Your task to perform on an android device: turn off improve location accuracy Image 0: 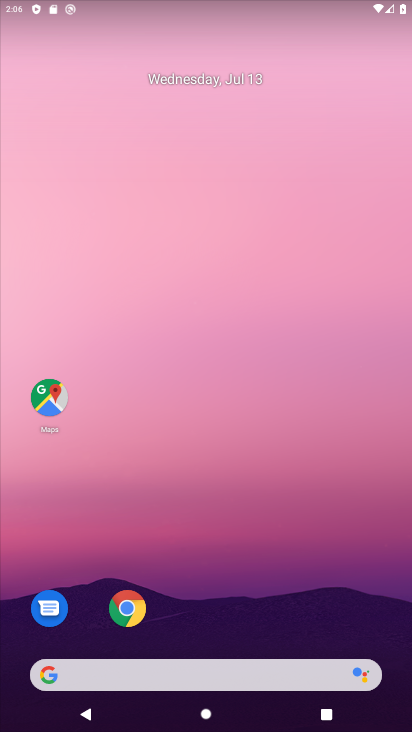
Step 0: drag from (223, 627) to (205, 202)
Your task to perform on an android device: turn off improve location accuracy Image 1: 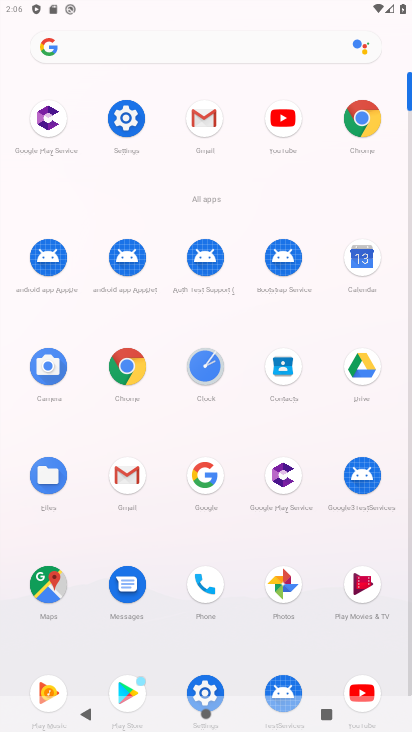
Step 1: click (198, 683)
Your task to perform on an android device: turn off improve location accuracy Image 2: 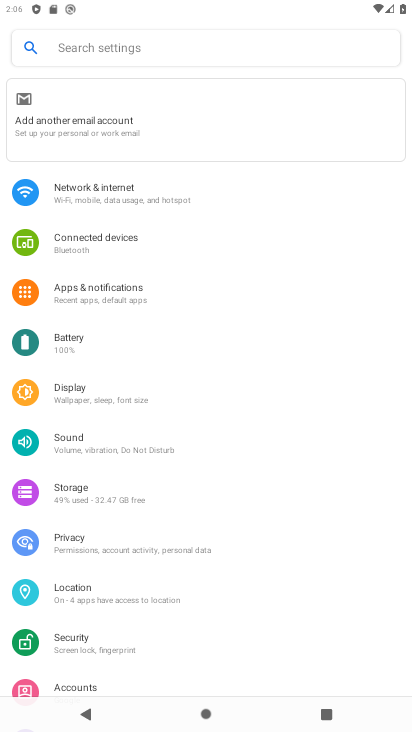
Step 2: click (89, 596)
Your task to perform on an android device: turn off improve location accuracy Image 3: 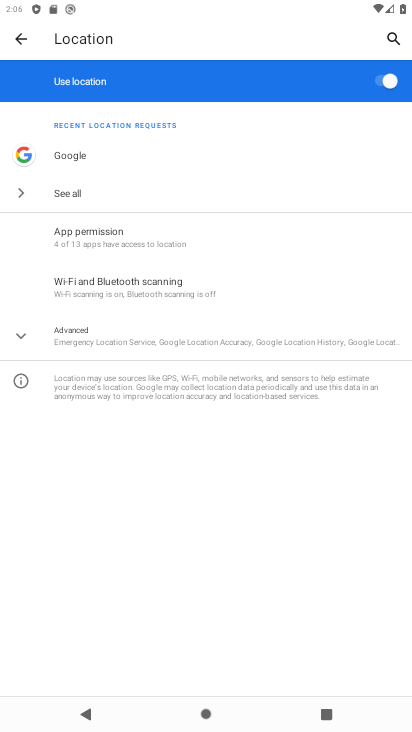
Step 3: click (75, 330)
Your task to perform on an android device: turn off improve location accuracy Image 4: 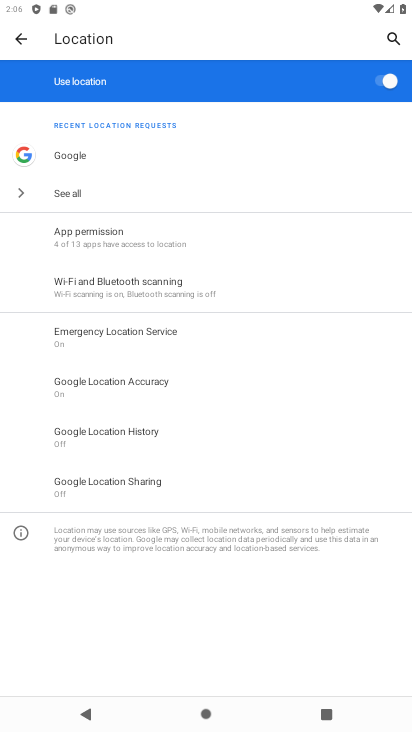
Step 4: click (84, 383)
Your task to perform on an android device: turn off improve location accuracy Image 5: 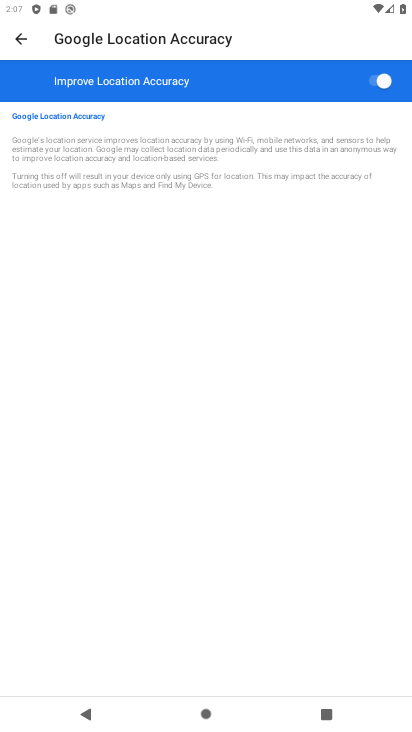
Step 5: click (370, 88)
Your task to perform on an android device: turn off improve location accuracy Image 6: 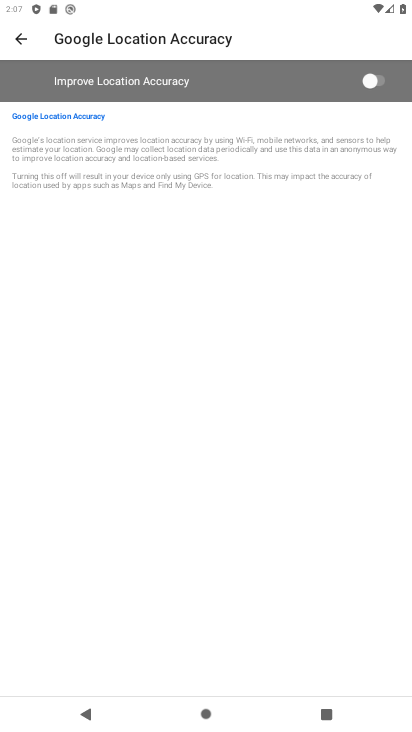
Step 6: task complete